Your task to perform on an android device: turn off translation in the chrome app Image 0: 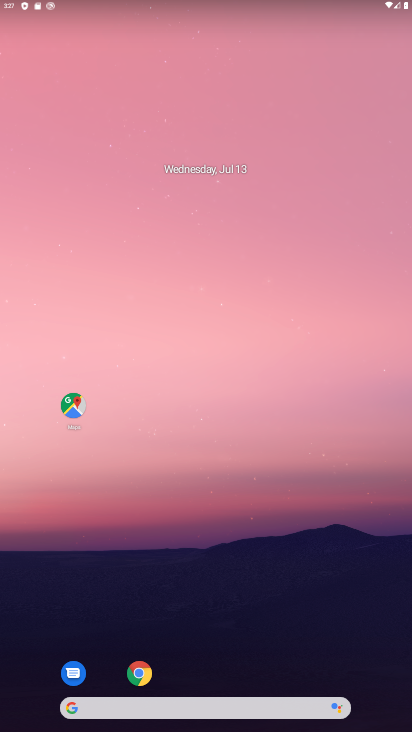
Step 0: click (137, 675)
Your task to perform on an android device: turn off translation in the chrome app Image 1: 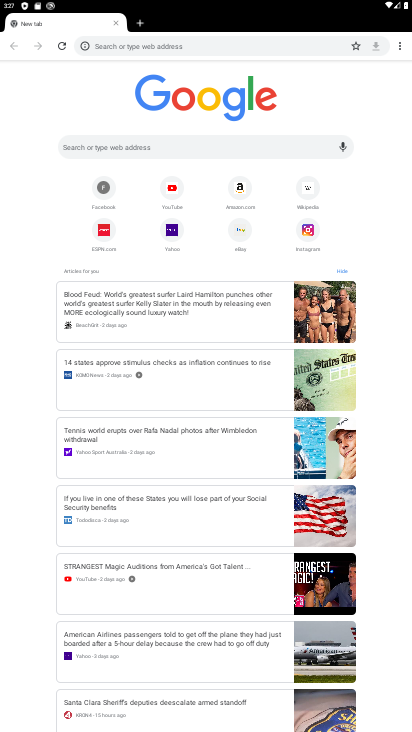
Step 1: click (401, 49)
Your task to perform on an android device: turn off translation in the chrome app Image 2: 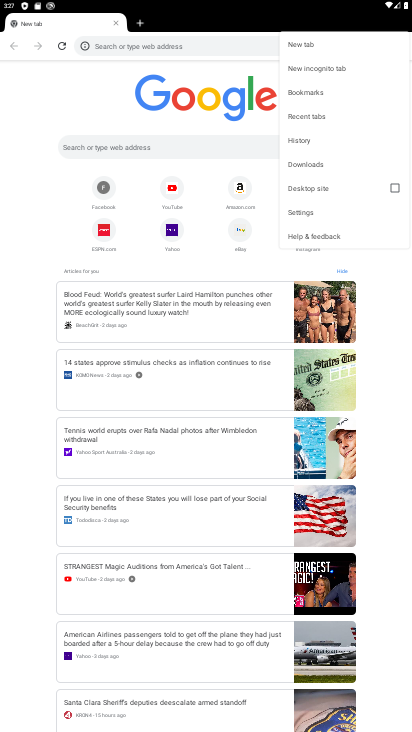
Step 2: click (305, 215)
Your task to perform on an android device: turn off translation in the chrome app Image 3: 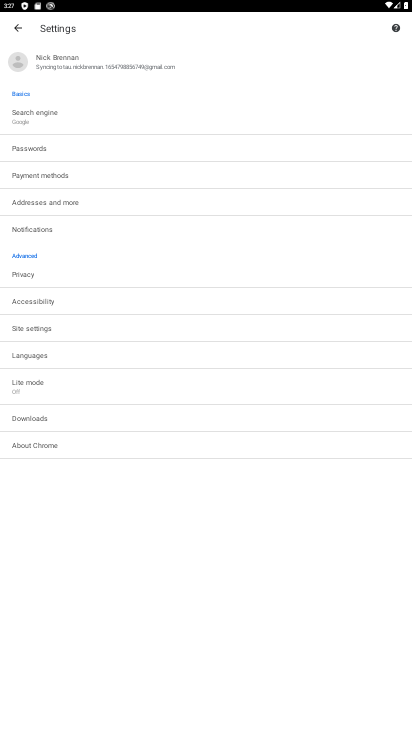
Step 3: click (22, 347)
Your task to perform on an android device: turn off translation in the chrome app Image 4: 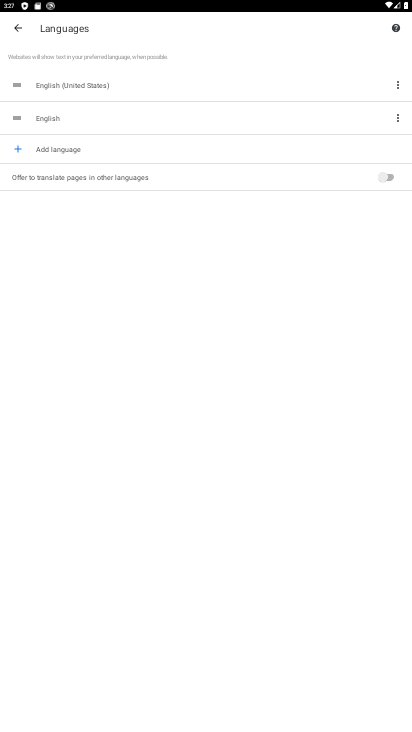
Step 4: click (391, 177)
Your task to perform on an android device: turn off translation in the chrome app Image 5: 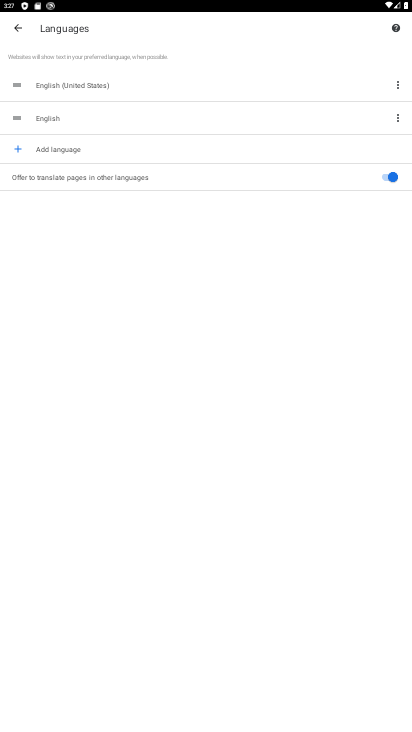
Step 5: task complete